Your task to perform on an android device: Search for hotels in Seattle Image 0: 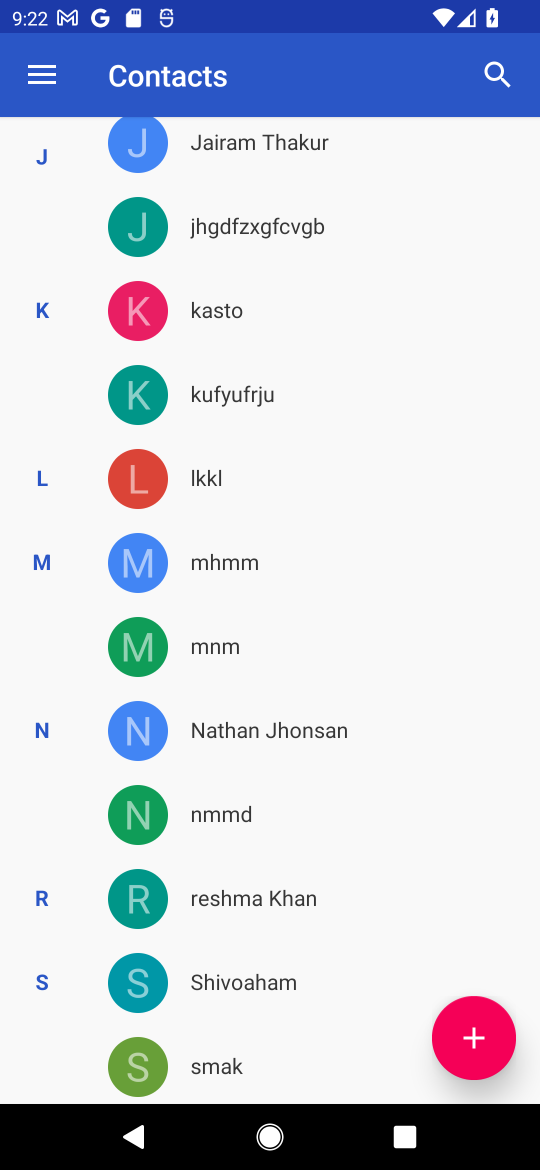
Step 0: press home button
Your task to perform on an android device: Search for hotels in Seattle Image 1: 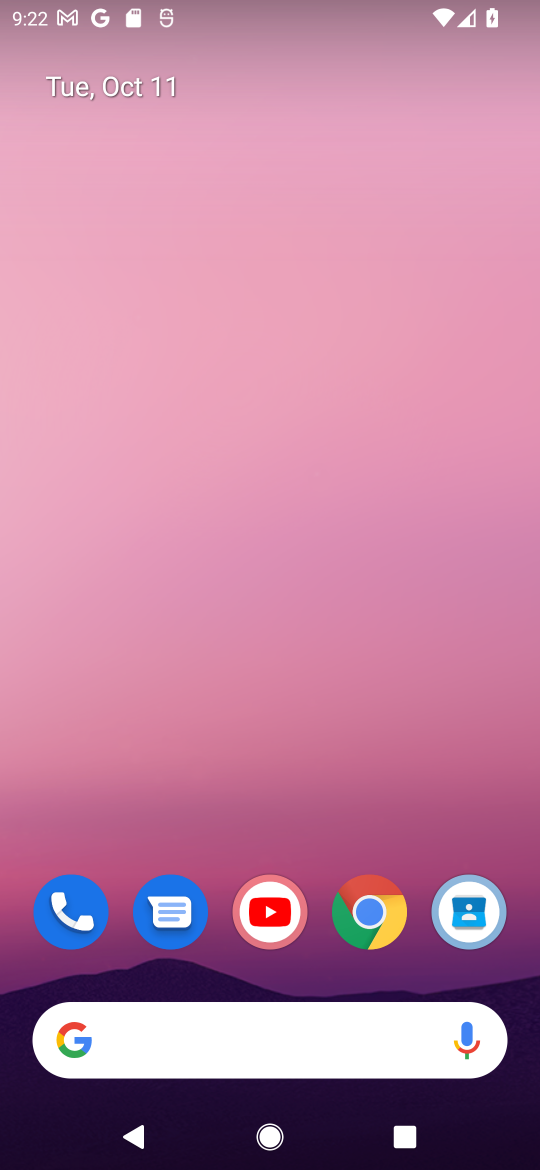
Step 1: click (369, 915)
Your task to perform on an android device: Search for hotels in Seattle Image 2: 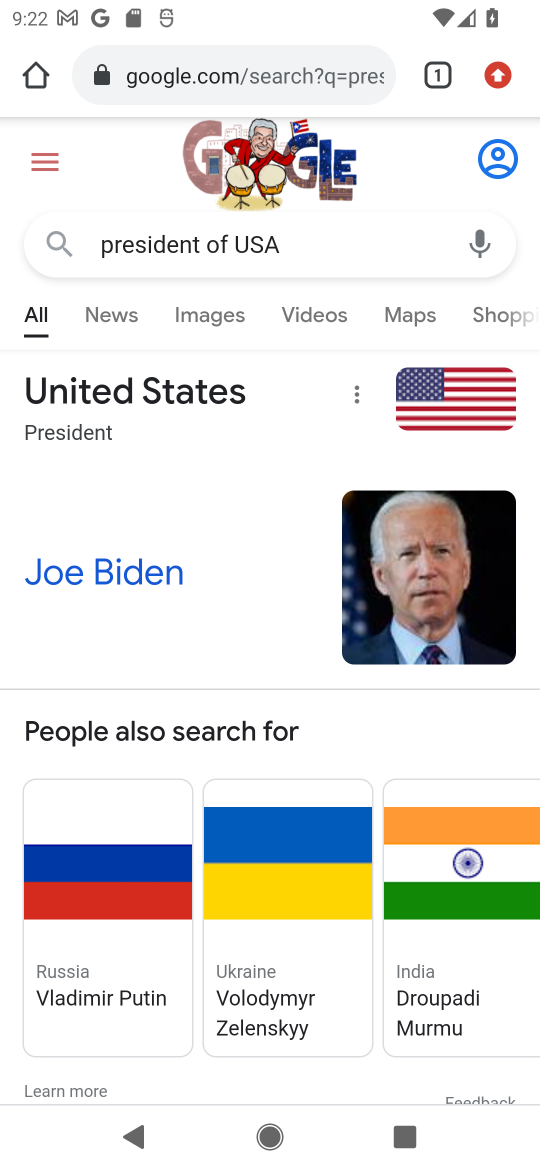
Step 2: click (244, 51)
Your task to perform on an android device: Search for hotels in Seattle Image 3: 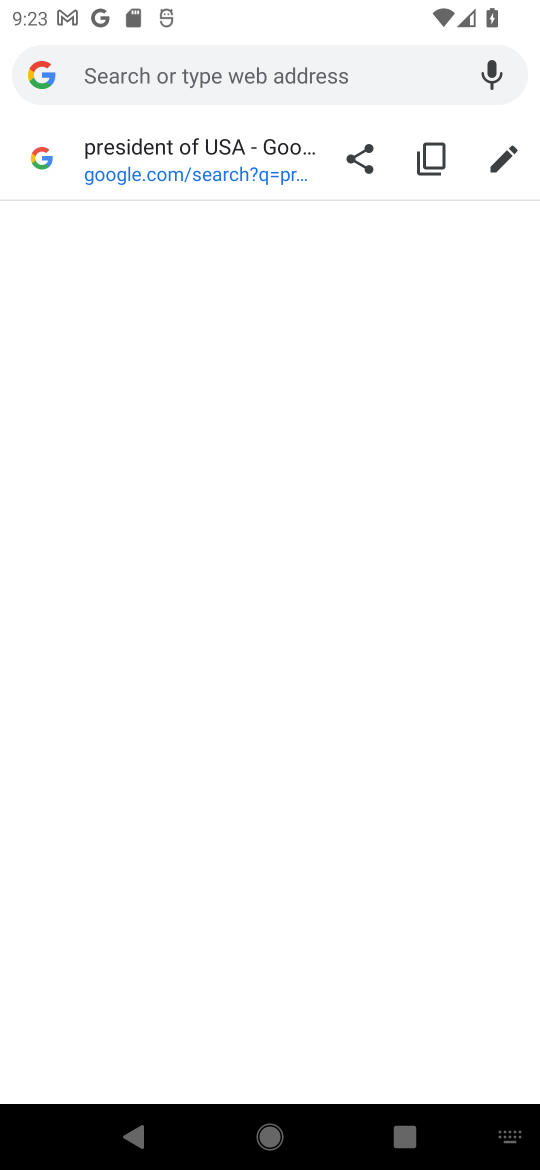
Step 3: type " hotels in Seattle"
Your task to perform on an android device: Search for hotels in Seattle Image 4: 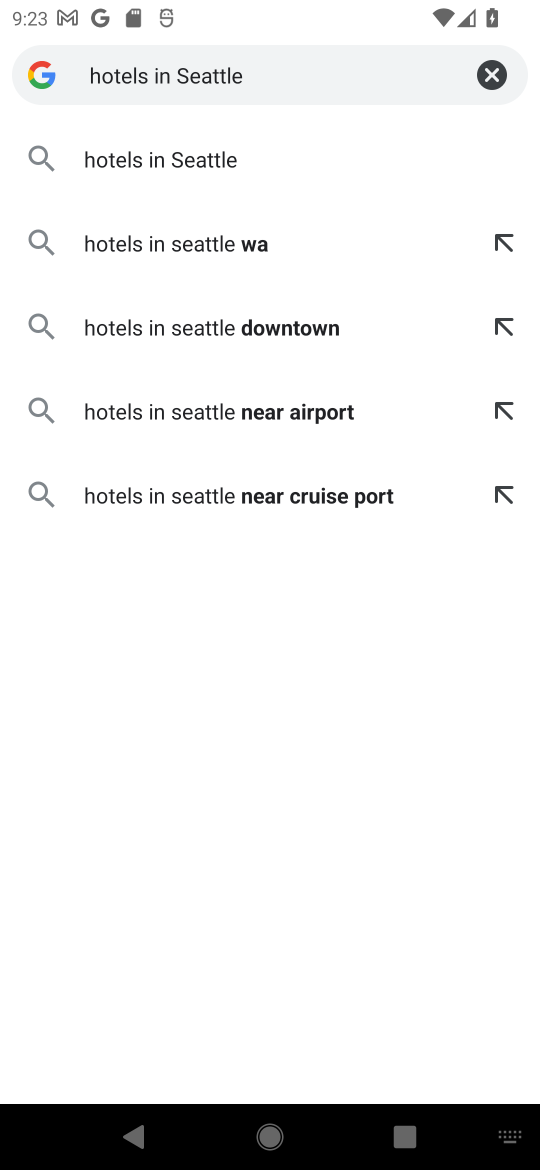
Step 4: click (148, 154)
Your task to perform on an android device: Search for hotels in Seattle Image 5: 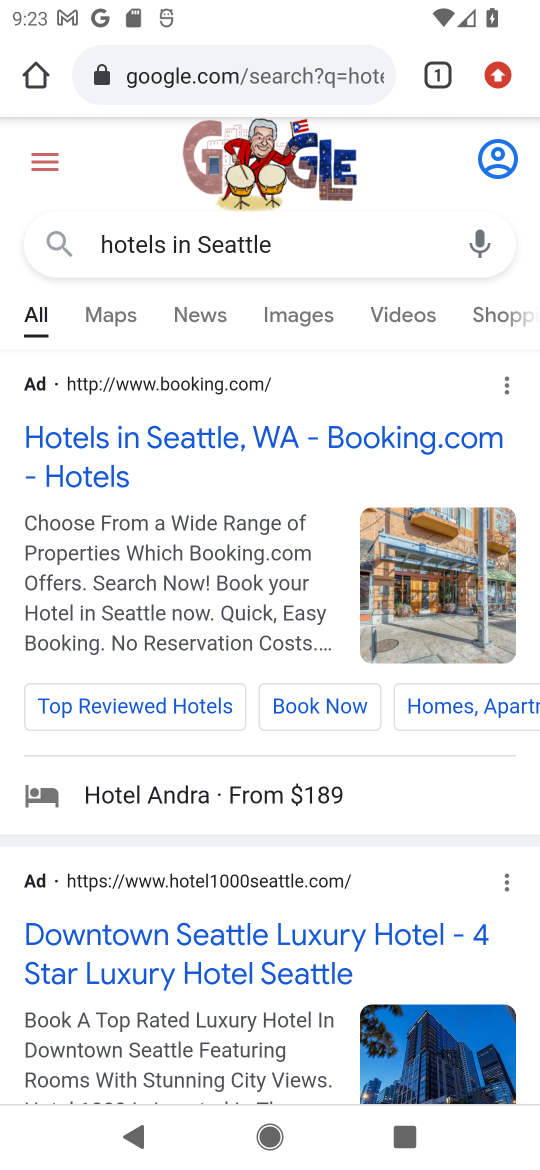
Step 5: click (80, 438)
Your task to perform on an android device: Search for hotels in Seattle Image 6: 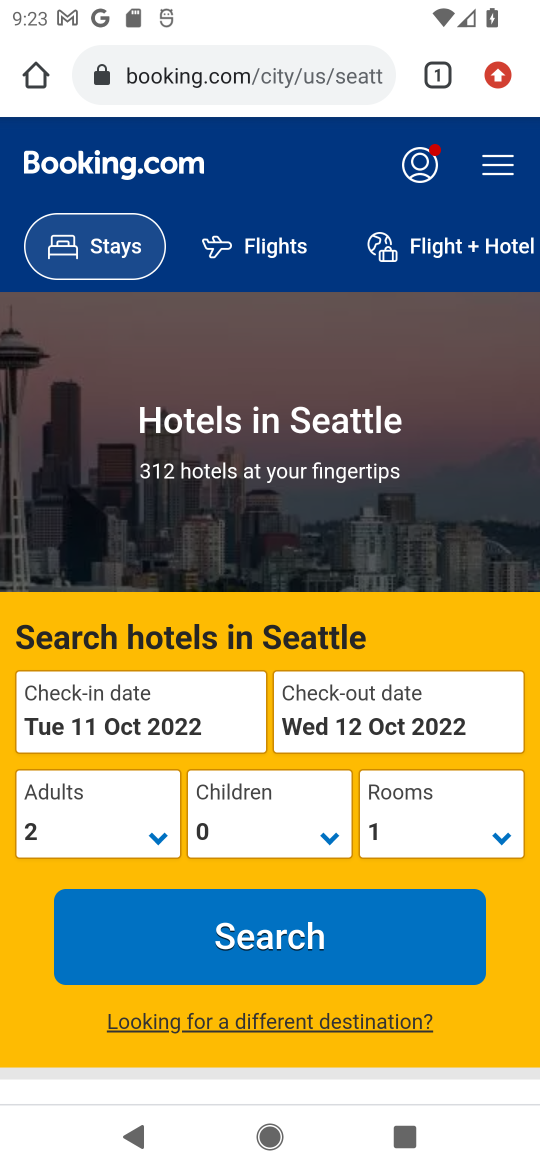
Step 6: click (264, 931)
Your task to perform on an android device: Search for hotels in Seattle Image 7: 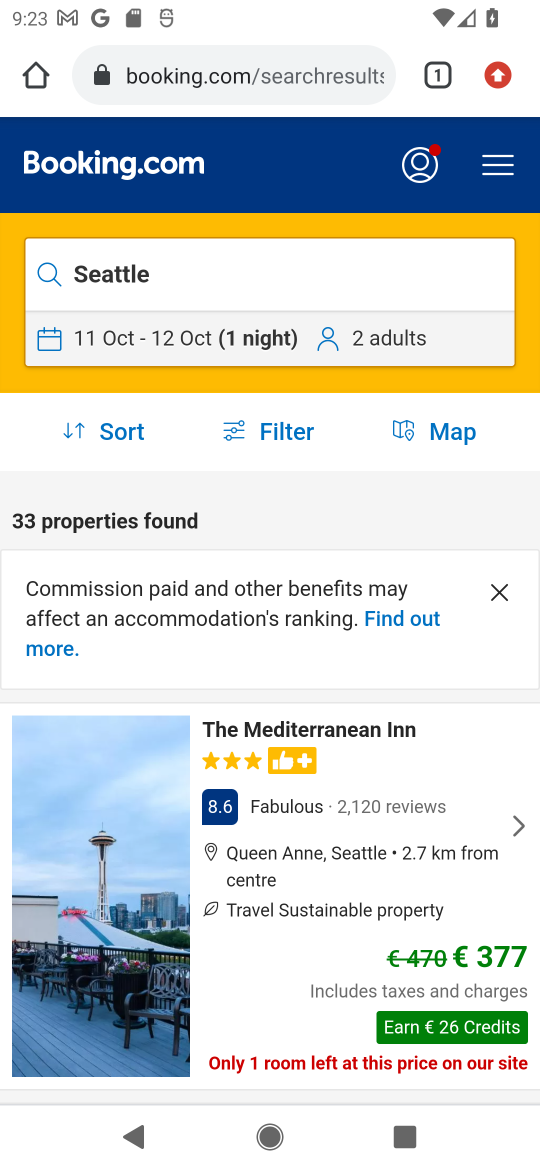
Step 7: task complete